Your task to perform on an android device: open wifi settings Image 0: 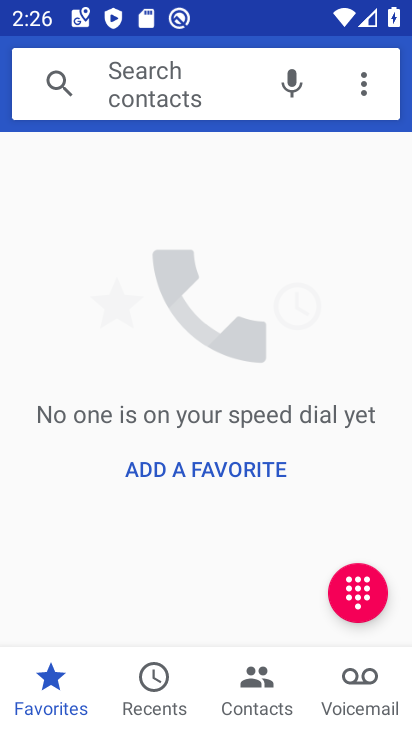
Step 0: press home button
Your task to perform on an android device: open wifi settings Image 1: 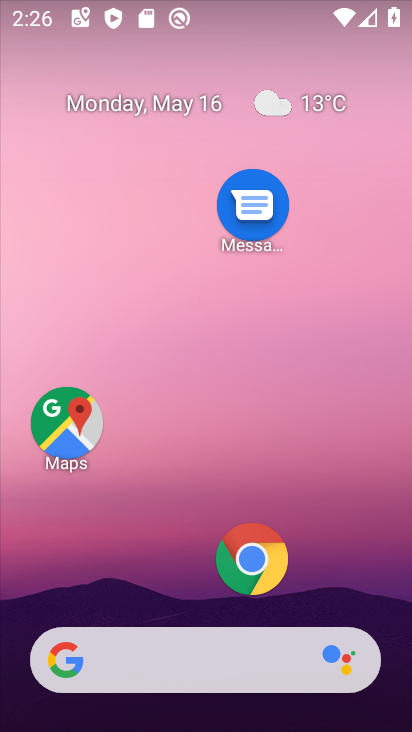
Step 1: drag from (149, 601) to (198, 172)
Your task to perform on an android device: open wifi settings Image 2: 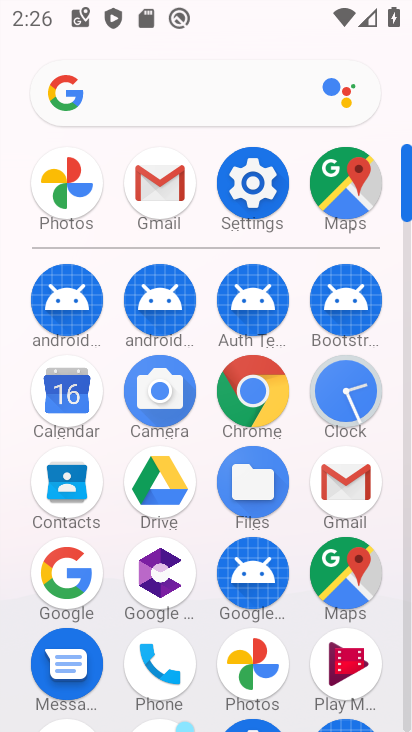
Step 2: click (254, 176)
Your task to perform on an android device: open wifi settings Image 3: 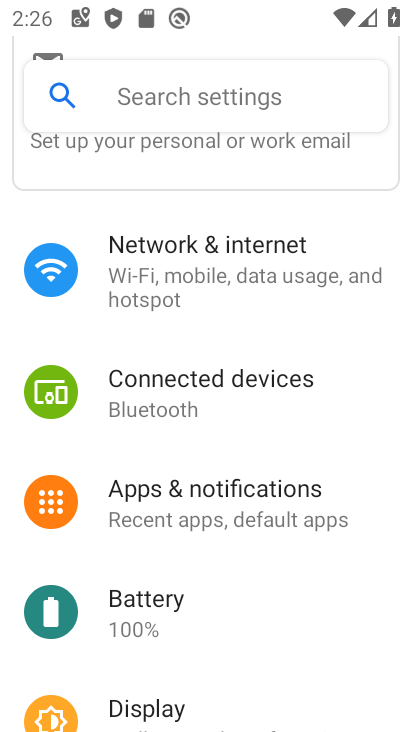
Step 3: click (204, 270)
Your task to perform on an android device: open wifi settings Image 4: 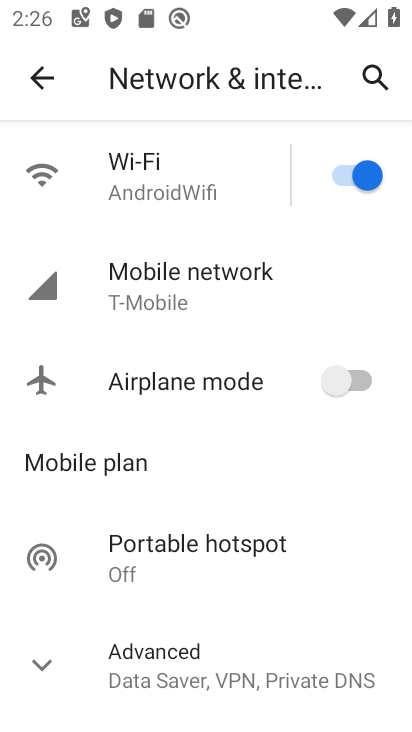
Step 4: click (162, 161)
Your task to perform on an android device: open wifi settings Image 5: 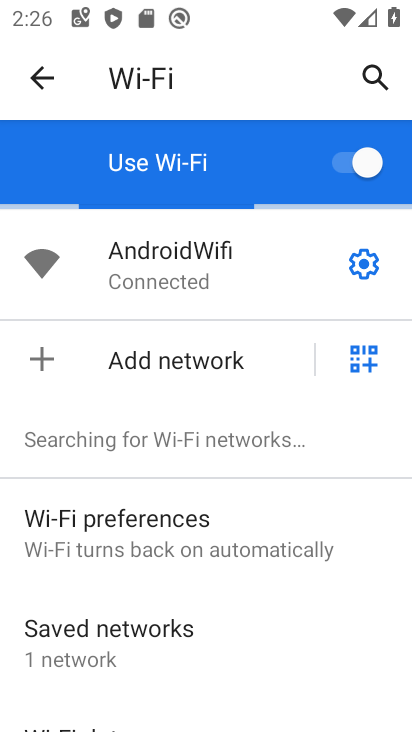
Step 5: task complete